Your task to perform on an android device: Open Amazon Image 0: 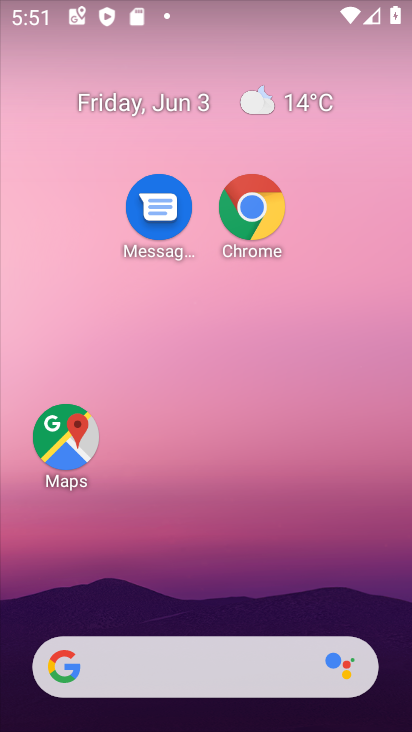
Step 0: click (253, 209)
Your task to perform on an android device: Open Amazon Image 1: 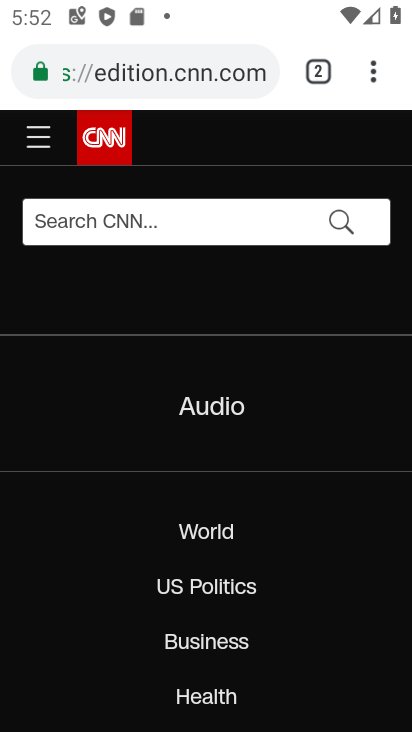
Step 1: task complete